Your task to perform on an android device: turn on priority inbox in the gmail app Image 0: 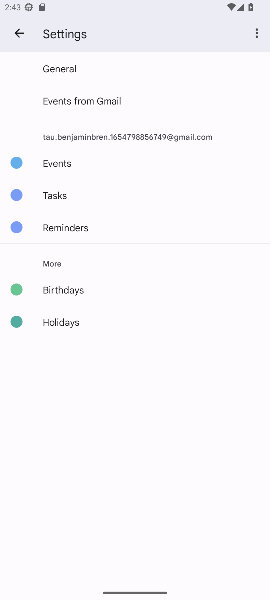
Step 0: press home button
Your task to perform on an android device: turn on priority inbox in the gmail app Image 1: 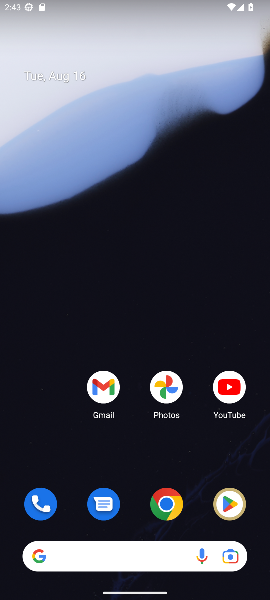
Step 1: drag from (191, 460) to (144, 483)
Your task to perform on an android device: turn on priority inbox in the gmail app Image 2: 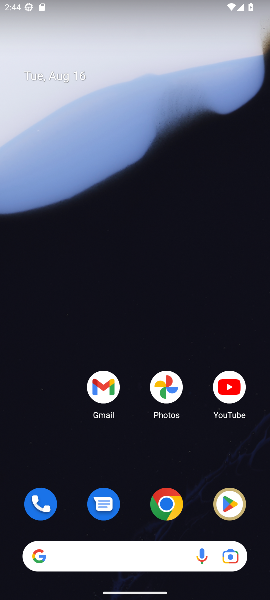
Step 2: click (110, 396)
Your task to perform on an android device: turn on priority inbox in the gmail app Image 3: 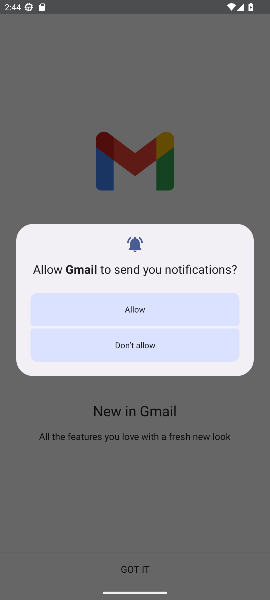
Step 3: click (154, 300)
Your task to perform on an android device: turn on priority inbox in the gmail app Image 4: 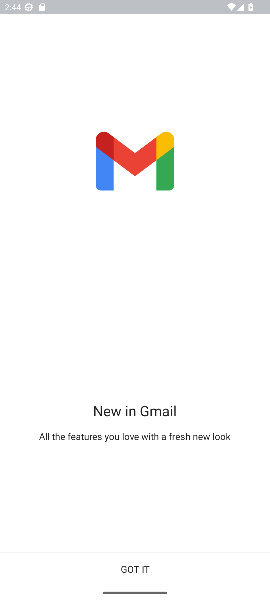
Step 4: click (153, 570)
Your task to perform on an android device: turn on priority inbox in the gmail app Image 5: 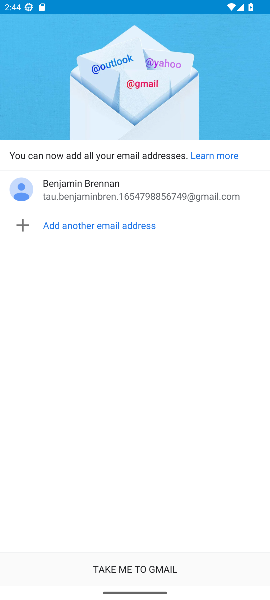
Step 5: click (153, 570)
Your task to perform on an android device: turn on priority inbox in the gmail app Image 6: 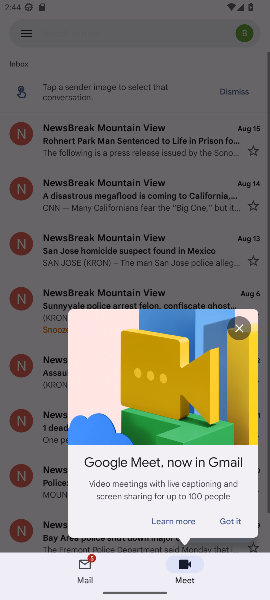
Step 6: click (243, 331)
Your task to perform on an android device: turn on priority inbox in the gmail app Image 7: 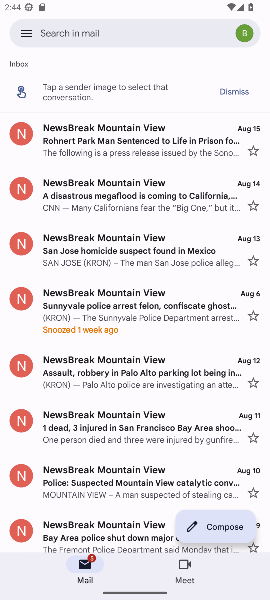
Step 7: click (27, 34)
Your task to perform on an android device: turn on priority inbox in the gmail app Image 8: 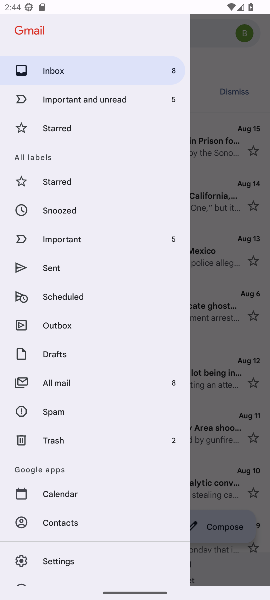
Step 8: click (77, 557)
Your task to perform on an android device: turn on priority inbox in the gmail app Image 9: 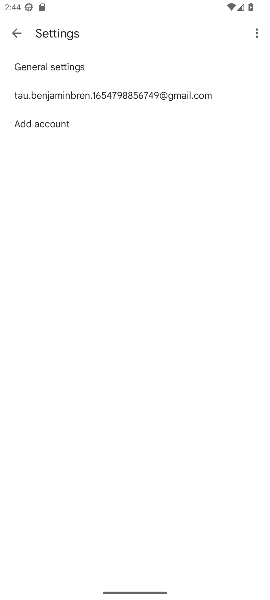
Step 9: click (87, 93)
Your task to perform on an android device: turn on priority inbox in the gmail app Image 10: 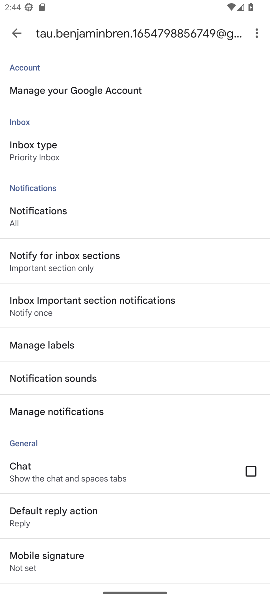
Step 10: task complete